Your task to perform on an android device: Open Google Chrome and click the shortcut for Amazon.com Image 0: 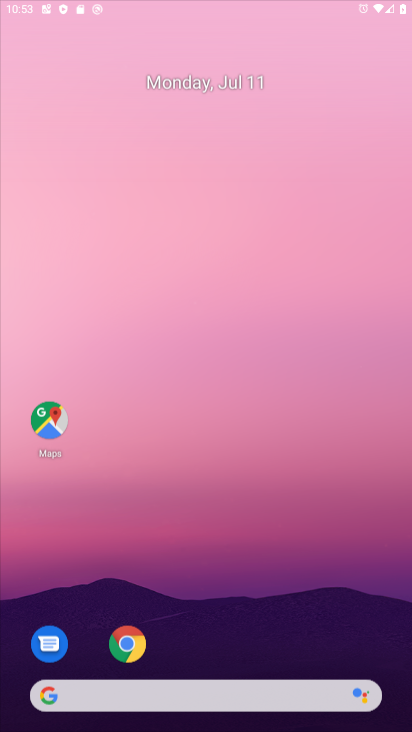
Step 0: press home button
Your task to perform on an android device: Open Google Chrome and click the shortcut for Amazon.com Image 1: 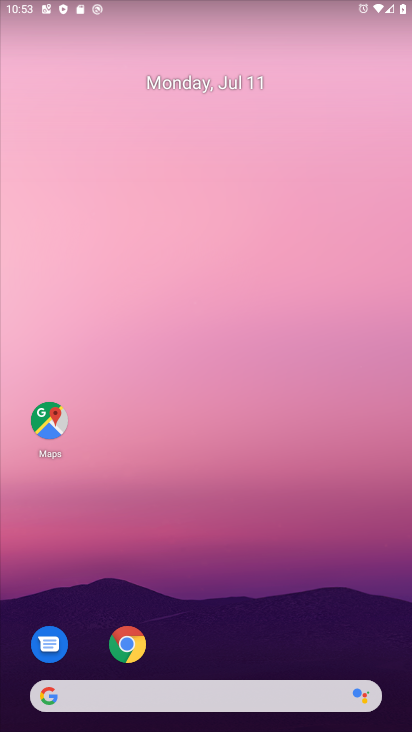
Step 1: click (122, 640)
Your task to perform on an android device: Open Google Chrome and click the shortcut for Amazon.com Image 2: 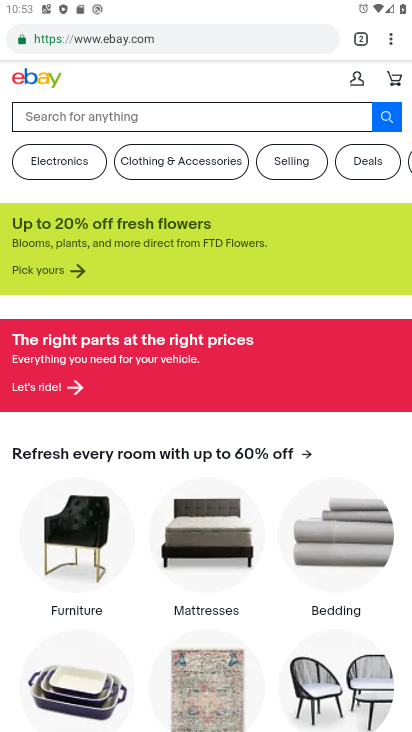
Step 2: click (361, 38)
Your task to perform on an android device: Open Google Chrome and click the shortcut for Amazon.com Image 3: 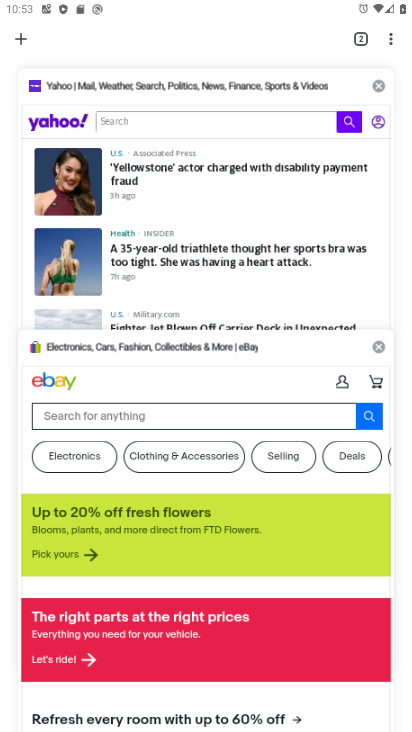
Step 3: click (378, 80)
Your task to perform on an android device: Open Google Chrome and click the shortcut for Amazon.com Image 4: 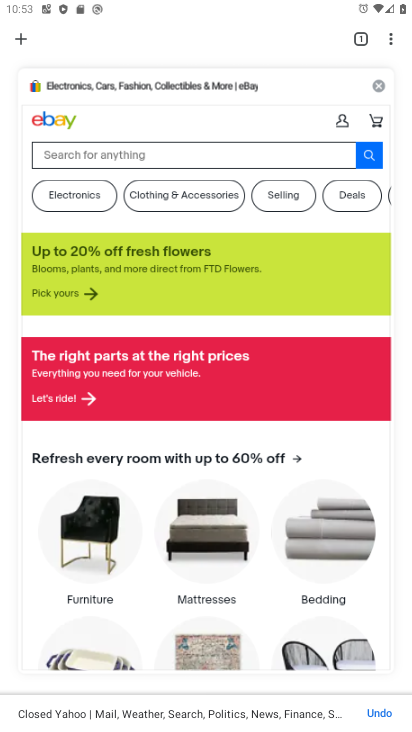
Step 4: click (376, 83)
Your task to perform on an android device: Open Google Chrome and click the shortcut for Amazon.com Image 5: 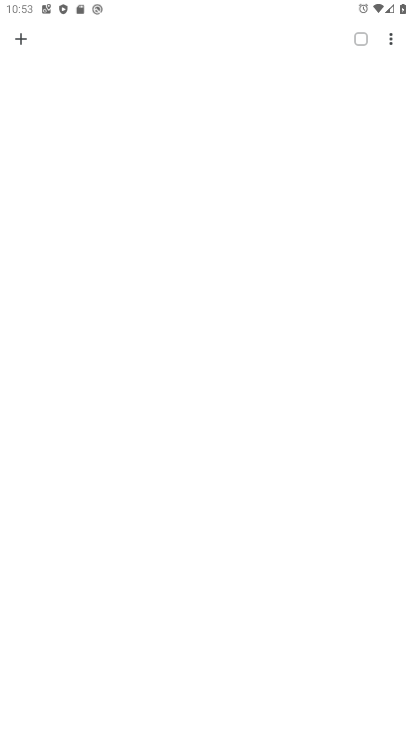
Step 5: click (24, 38)
Your task to perform on an android device: Open Google Chrome and click the shortcut for Amazon.com Image 6: 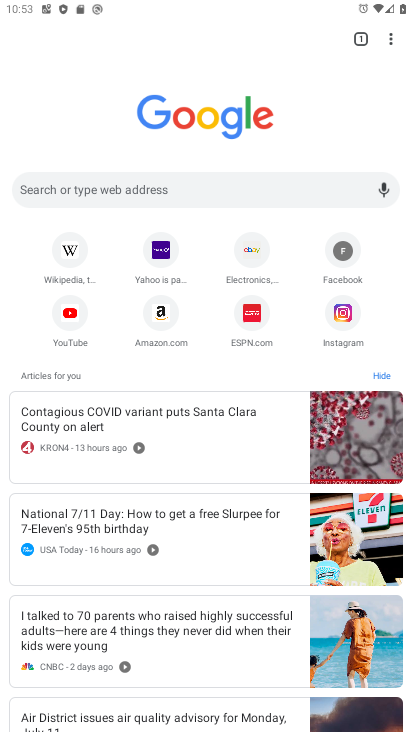
Step 6: click (161, 308)
Your task to perform on an android device: Open Google Chrome and click the shortcut for Amazon.com Image 7: 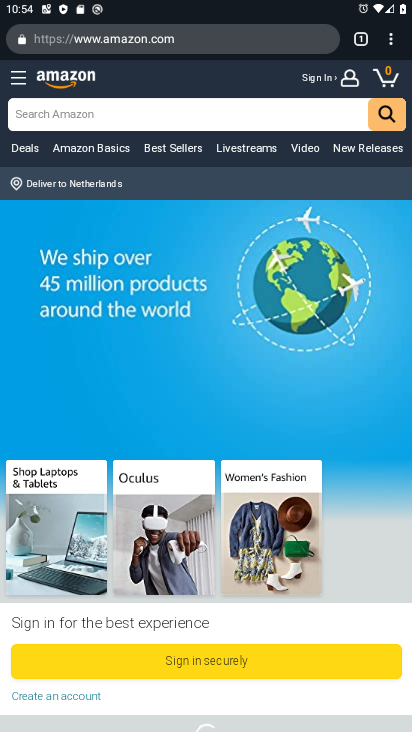
Step 7: task complete